Your task to perform on an android device: Open Android settings Image 0: 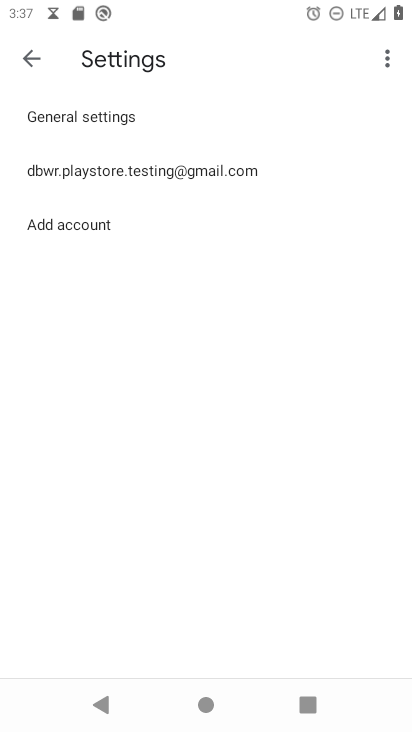
Step 0: press home button
Your task to perform on an android device: Open Android settings Image 1: 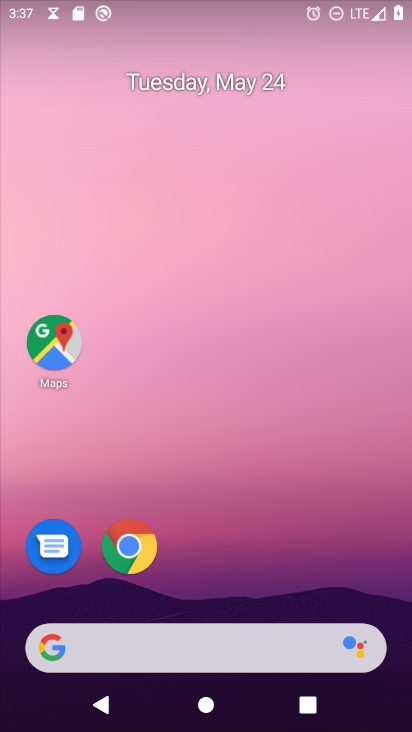
Step 1: drag from (322, 623) to (405, 45)
Your task to perform on an android device: Open Android settings Image 2: 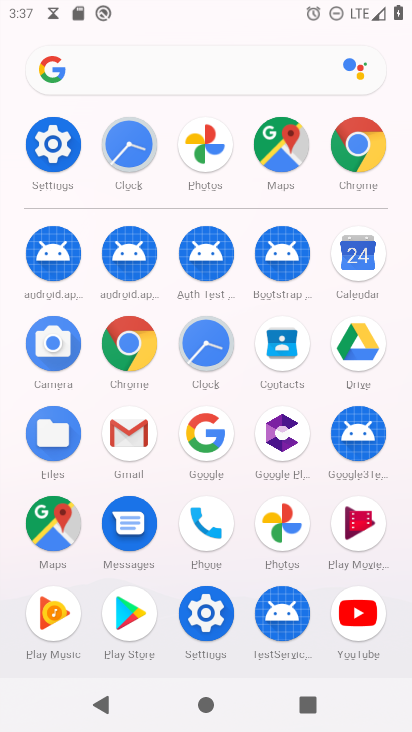
Step 2: click (61, 158)
Your task to perform on an android device: Open Android settings Image 3: 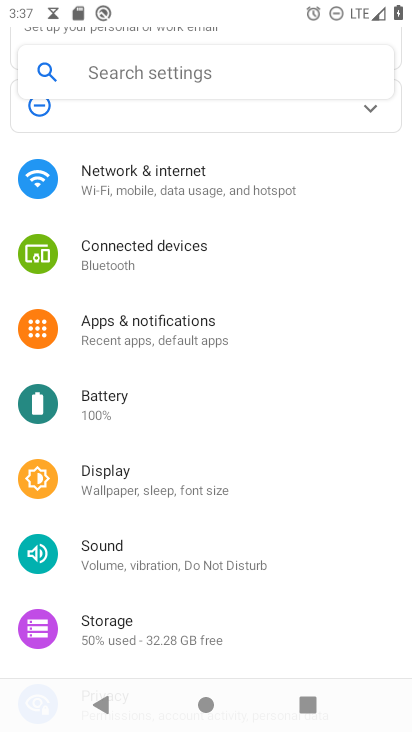
Step 3: drag from (217, 601) to (407, 8)
Your task to perform on an android device: Open Android settings Image 4: 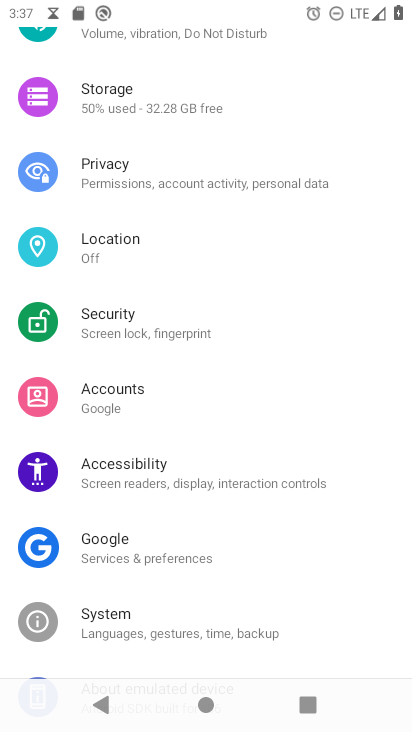
Step 4: drag from (235, 612) to (273, 109)
Your task to perform on an android device: Open Android settings Image 5: 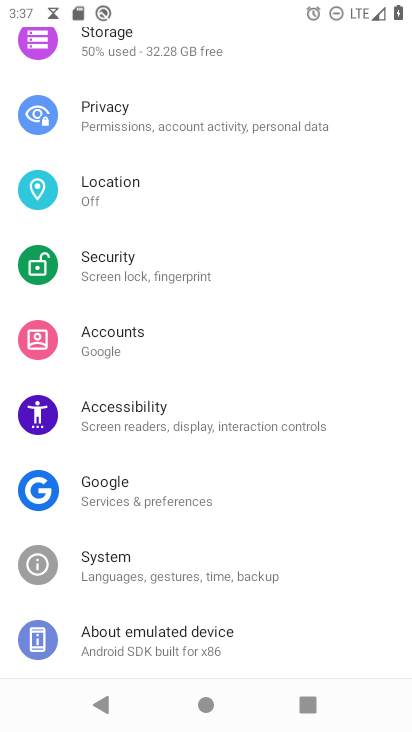
Step 5: click (216, 638)
Your task to perform on an android device: Open Android settings Image 6: 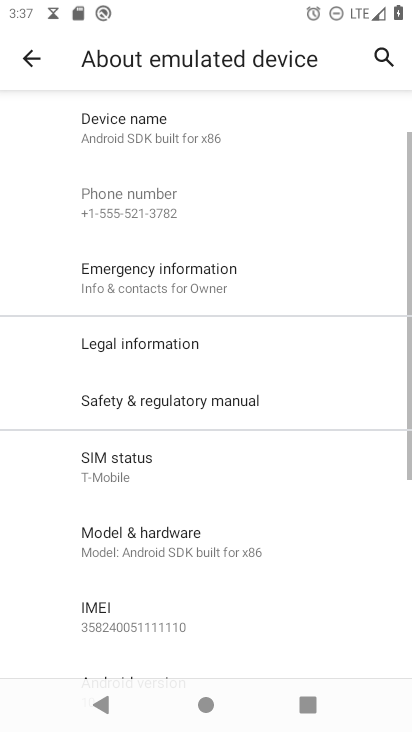
Step 6: drag from (171, 651) to (259, 0)
Your task to perform on an android device: Open Android settings Image 7: 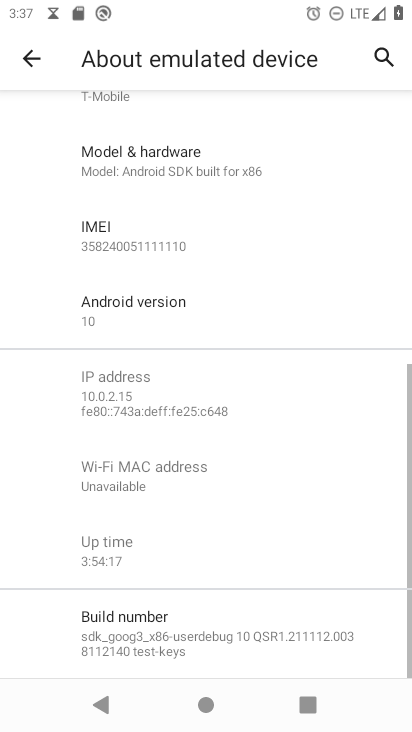
Step 7: click (132, 311)
Your task to perform on an android device: Open Android settings Image 8: 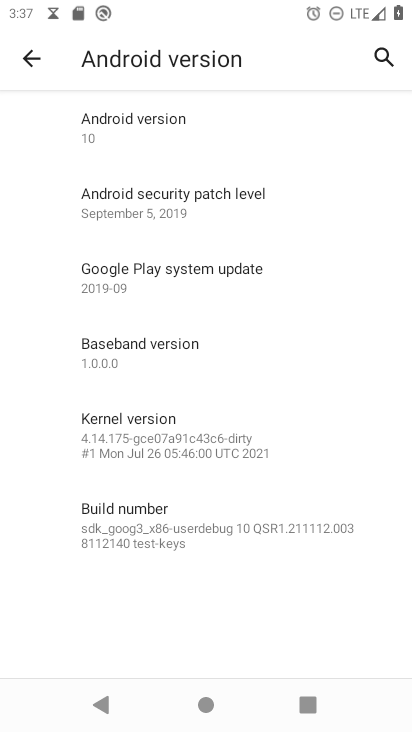
Step 8: task complete